Your task to perform on an android device: turn off location Image 0: 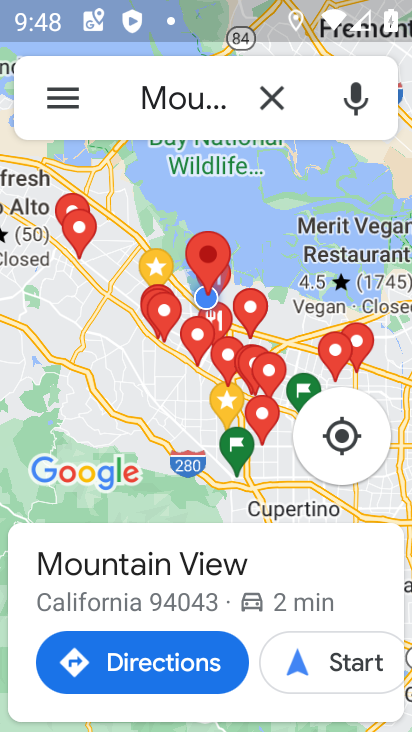
Step 0: press home button
Your task to perform on an android device: turn off location Image 1: 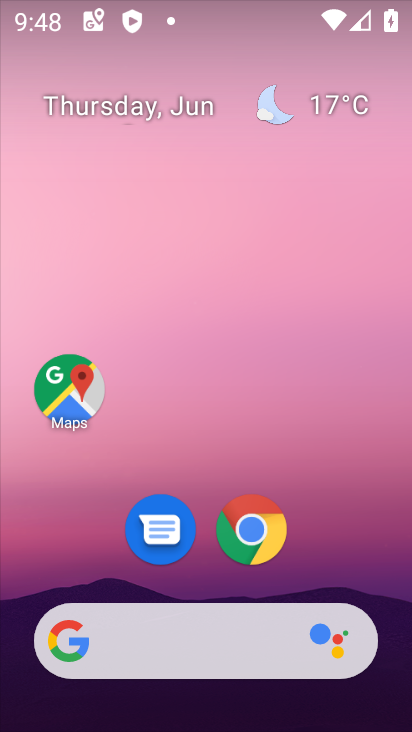
Step 1: drag from (362, 596) to (327, 131)
Your task to perform on an android device: turn off location Image 2: 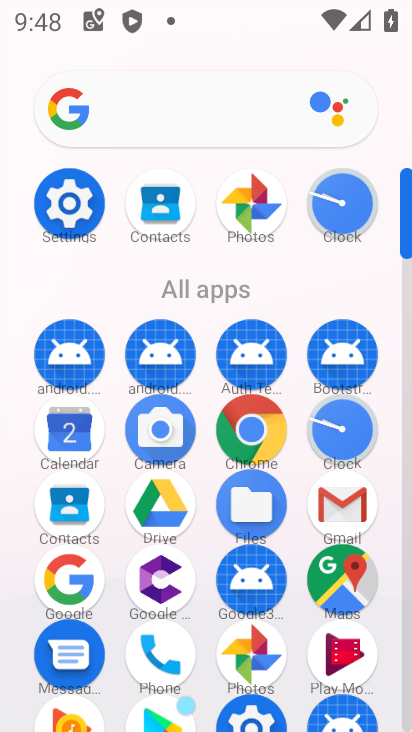
Step 2: click (405, 701)
Your task to perform on an android device: turn off location Image 3: 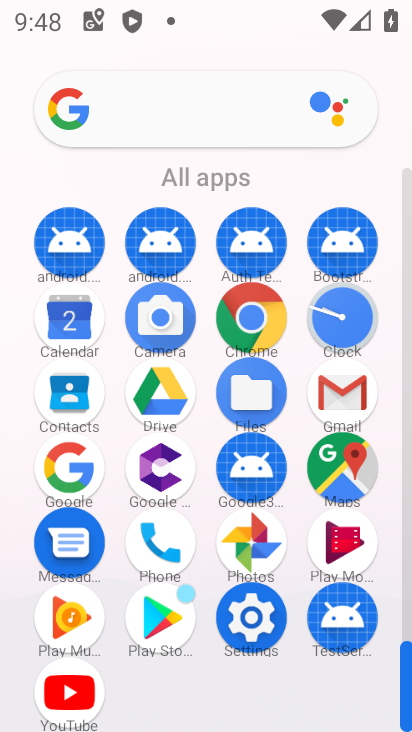
Step 3: click (254, 626)
Your task to perform on an android device: turn off location Image 4: 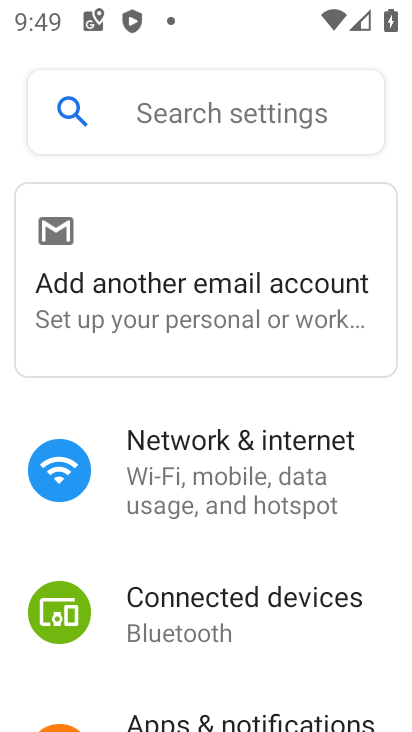
Step 4: drag from (372, 700) to (277, 196)
Your task to perform on an android device: turn off location Image 5: 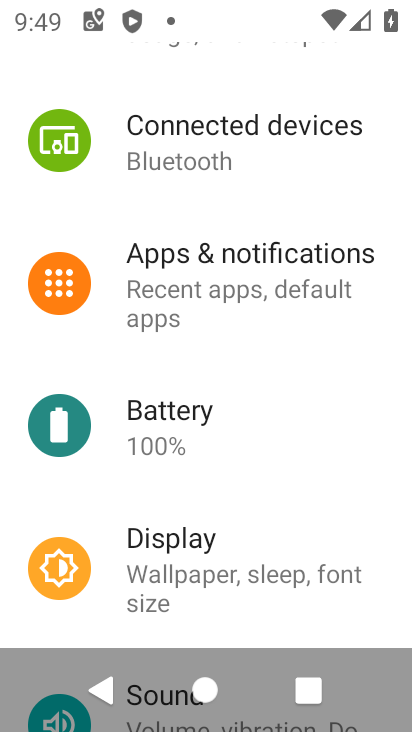
Step 5: drag from (281, 581) to (265, 105)
Your task to perform on an android device: turn off location Image 6: 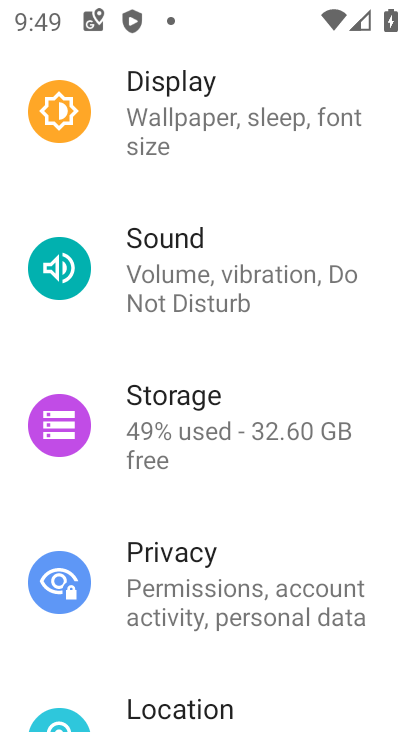
Step 6: drag from (284, 568) to (245, 152)
Your task to perform on an android device: turn off location Image 7: 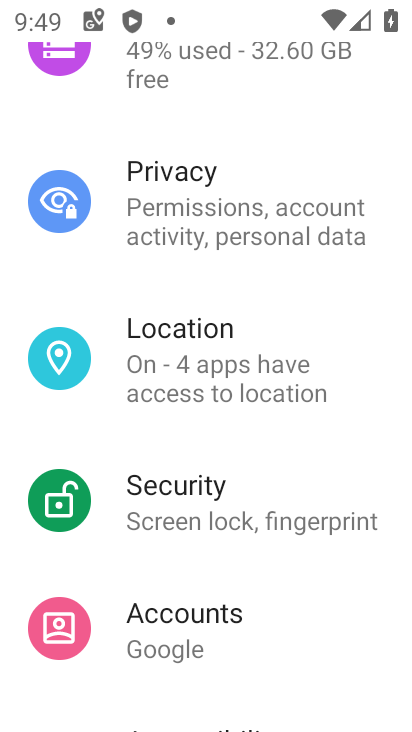
Step 7: click (174, 355)
Your task to perform on an android device: turn off location Image 8: 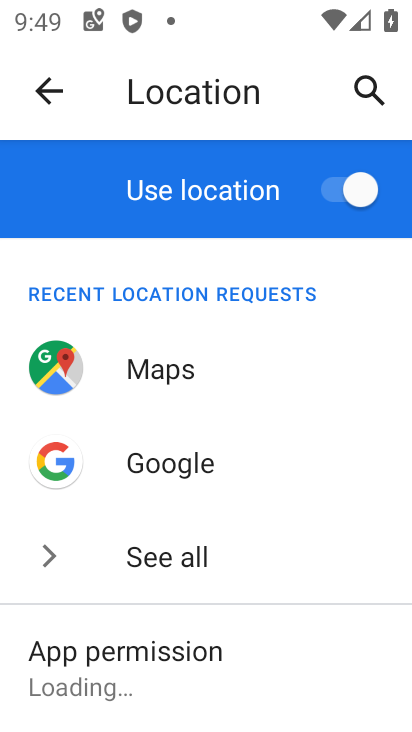
Step 8: click (327, 187)
Your task to perform on an android device: turn off location Image 9: 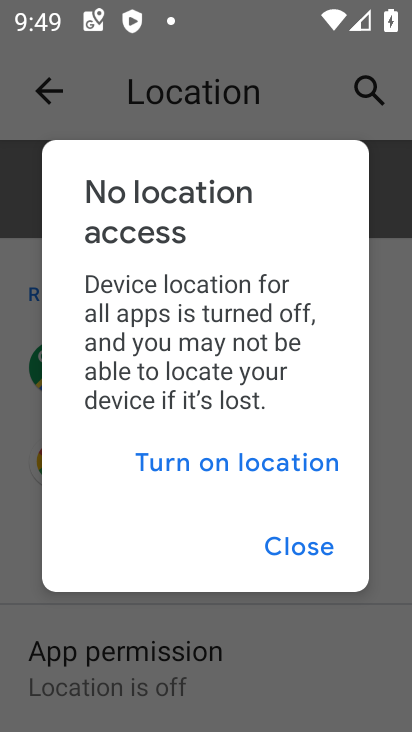
Step 9: task complete